Your task to perform on an android device: Open ESPN.com Image 0: 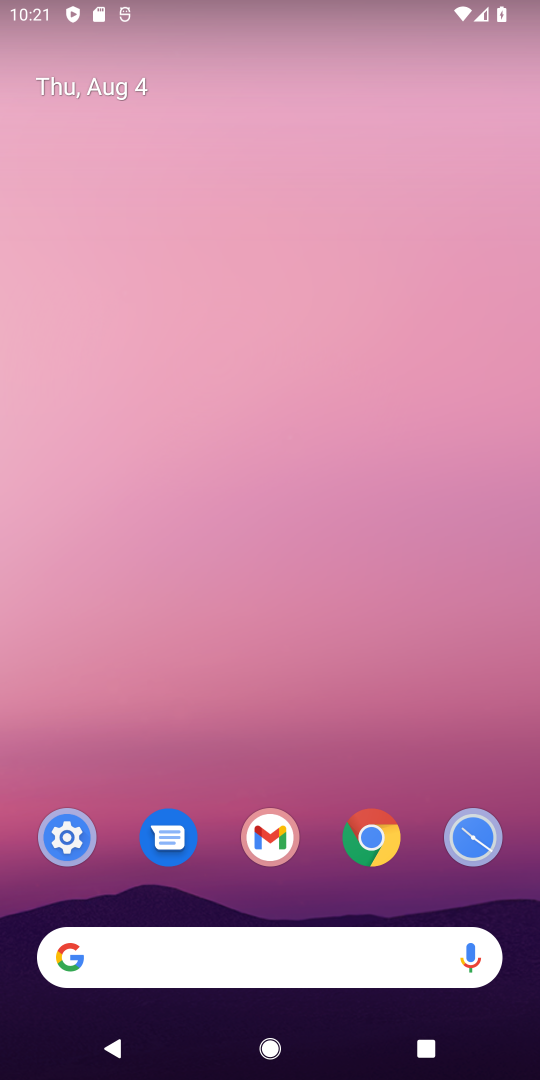
Step 0: drag from (423, 881) to (214, 13)
Your task to perform on an android device: Open ESPN.com Image 1: 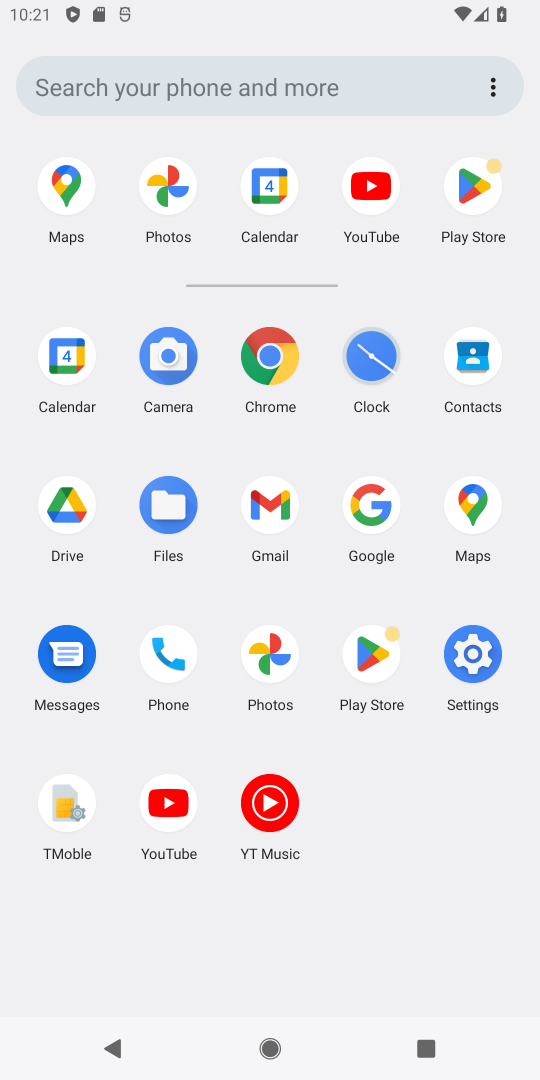
Step 1: click (359, 515)
Your task to perform on an android device: Open ESPN.com Image 2: 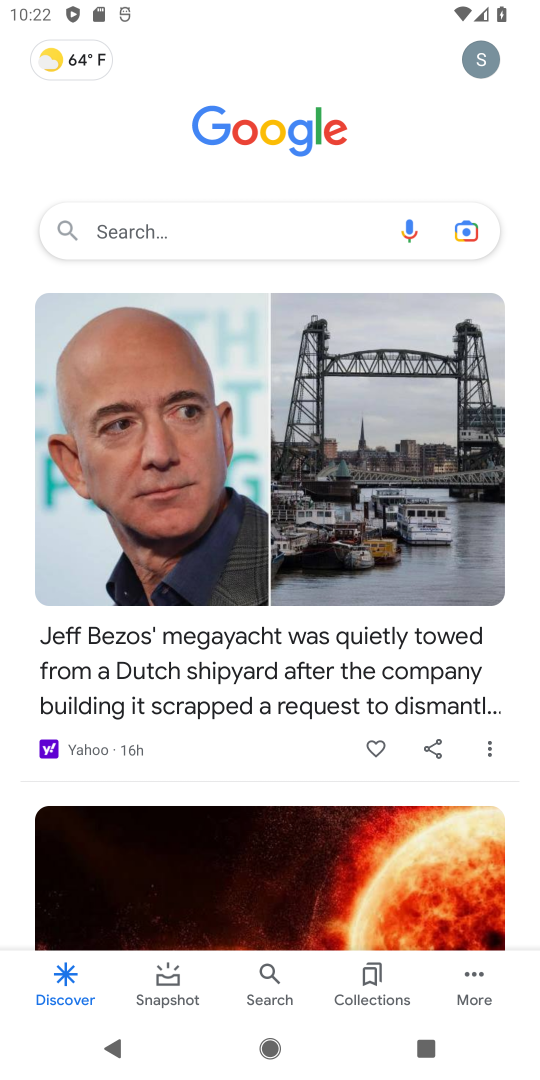
Step 2: click (171, 223)
Your task to perform on an android device: Open ESPN.com Image 3: 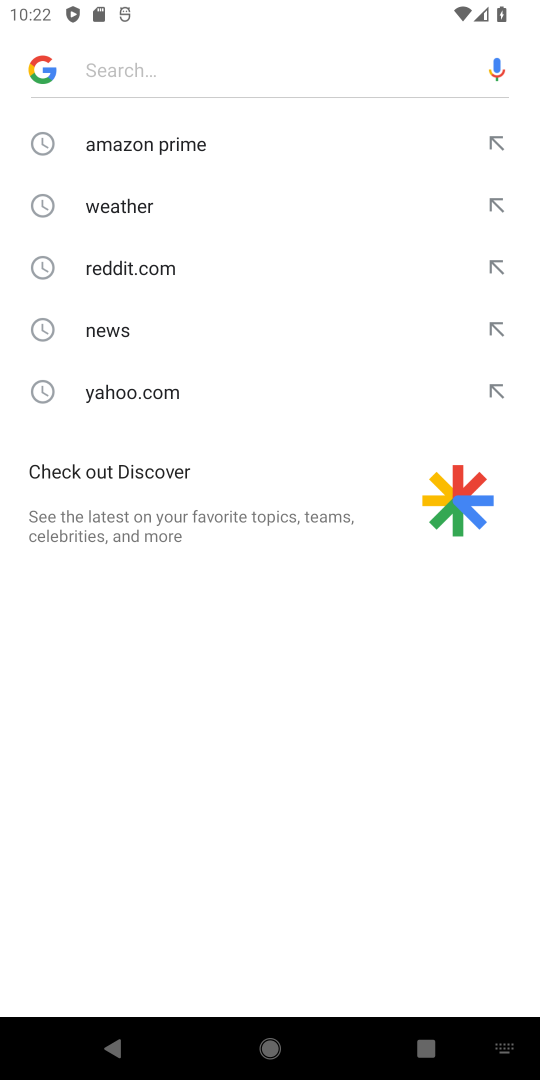
Step 3: type "ESPN.com"
Your task to perform on an android device: Open ESPN.com Image 4: 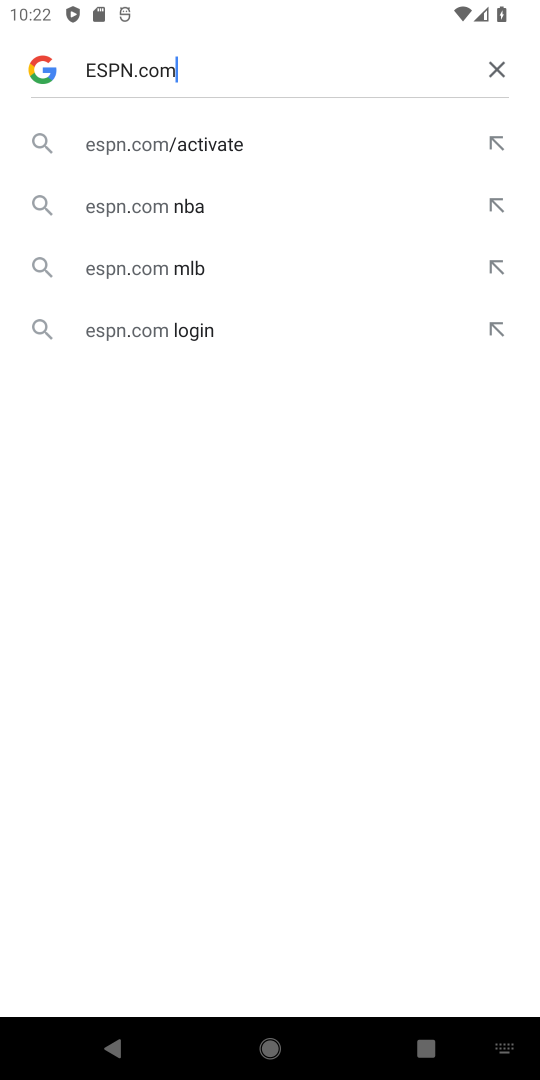
Step 4: click (131, 151)
Your task to perform on an android device: Open ESPN.com Image 5: 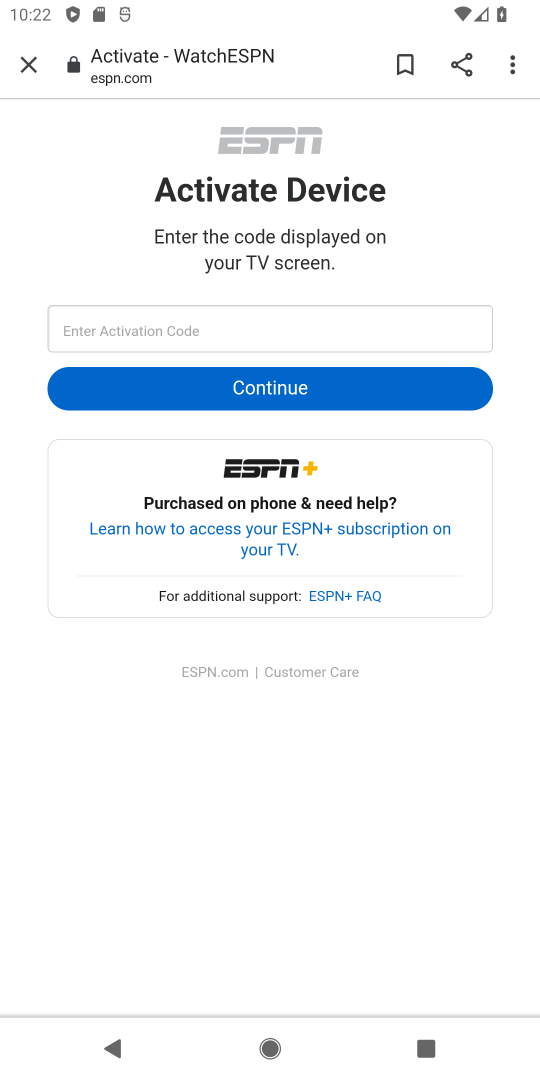
Step 5: task complete